Your task to perform on an android device: clear history in the chrome app Image 0: 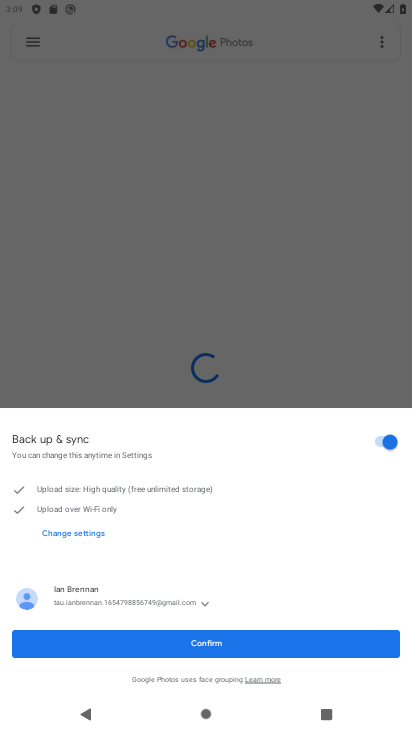
Step 0: press home button
Your task to perform on an android device: clear history in the chrome app Image 1: 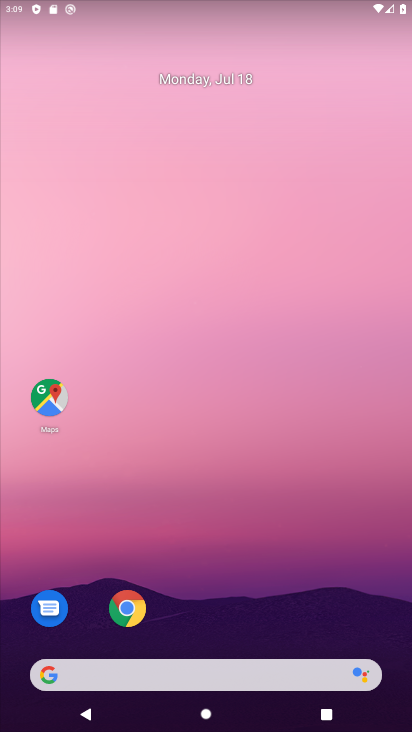
Step 1: drag from (238, 598) to (222, 43)
Your task to perform on an android device: clear history in the chrome app Image 2: 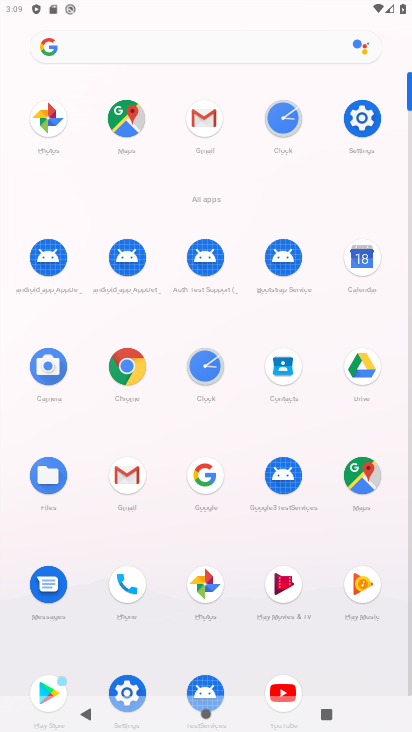
Step 2: click (119, 365)
Your task to perform on an android device: clear history in the chrome app Image 3: 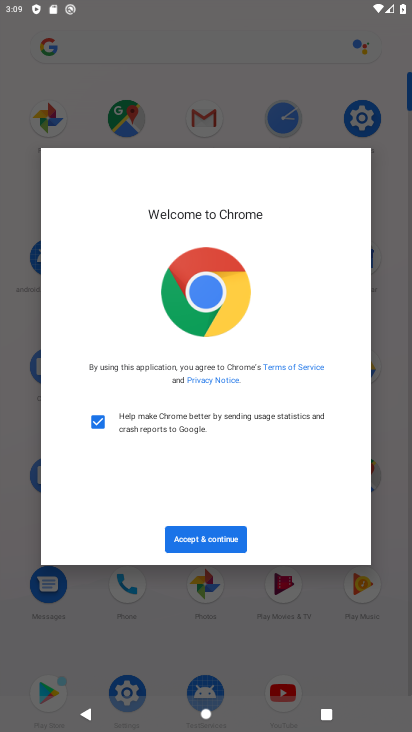
Step 3: click (217, 532)
Your task to perform on an android device: clear history in the chrome app Image 4: 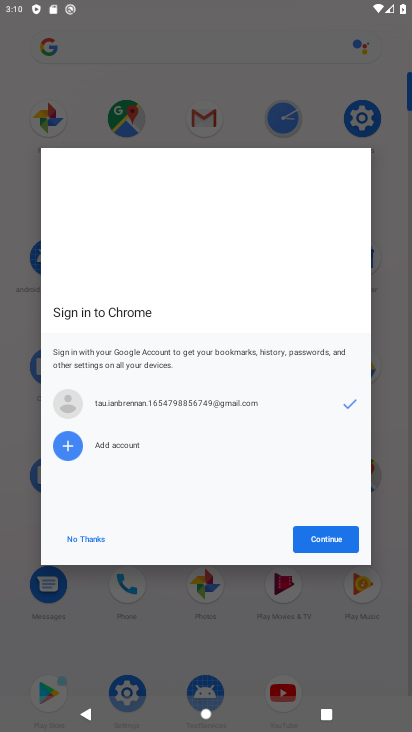
Step 4: click (317, 539)
Your task to perform on an android device: clear history in the chrome app Image 5: 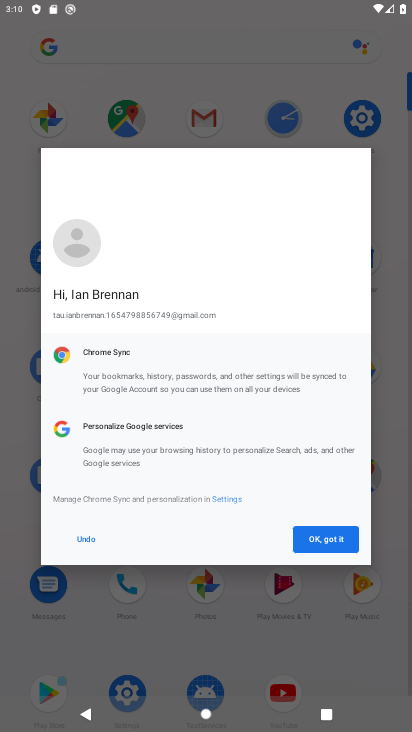
Step 5: click (319, 534)
Your task to perform on an android device: clear history in the chrome app Image 6: 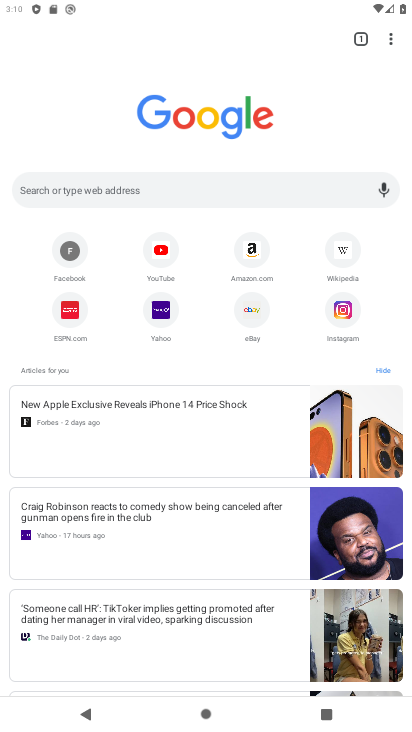
Step 6: drag from (389, 36) to (237, 214)
Your task to perform on an android device: clear history in the chrome app Image 7: 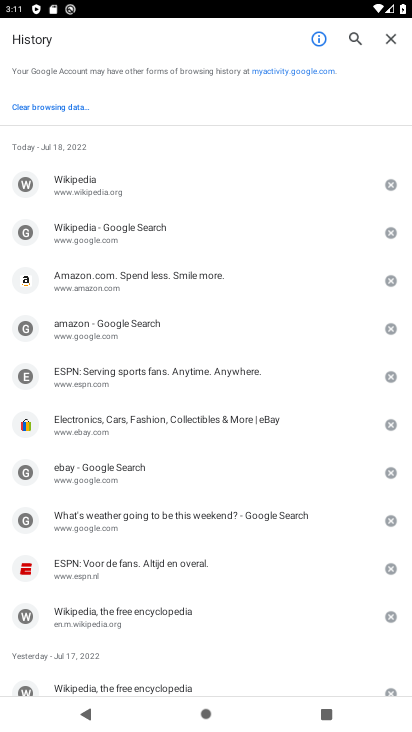
Step 7: click (43, 105)
Your task to perform on an android device: clear history in the chrome app Image 8: 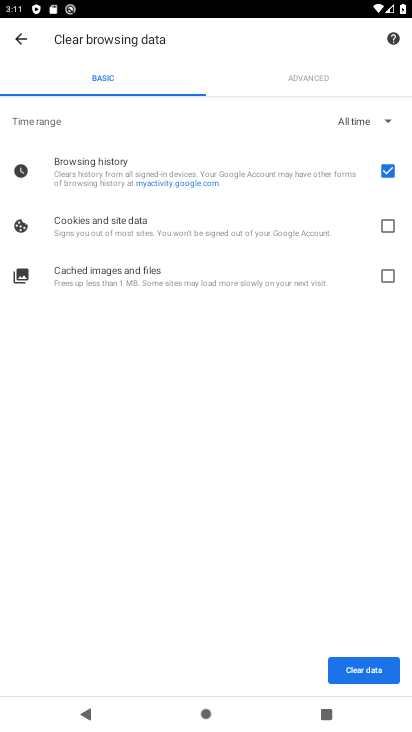
Step 8: click (388, 674)
Your task to perform on an android device: clear history in the chrome app Image 9: 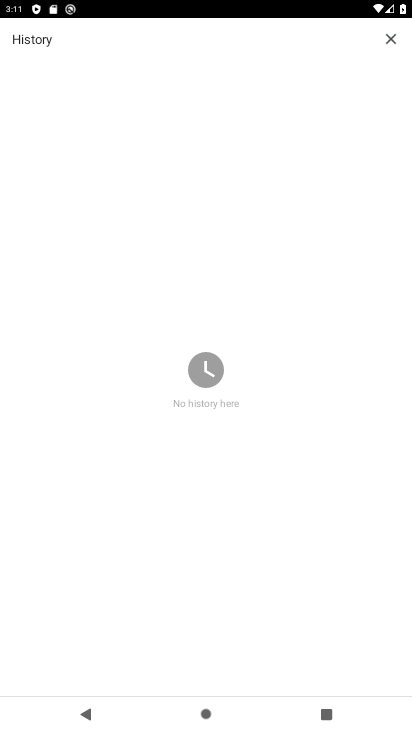
Step 9: task complete